Your task to perform on an android device: add a label to a message in the gmail app Image 0: 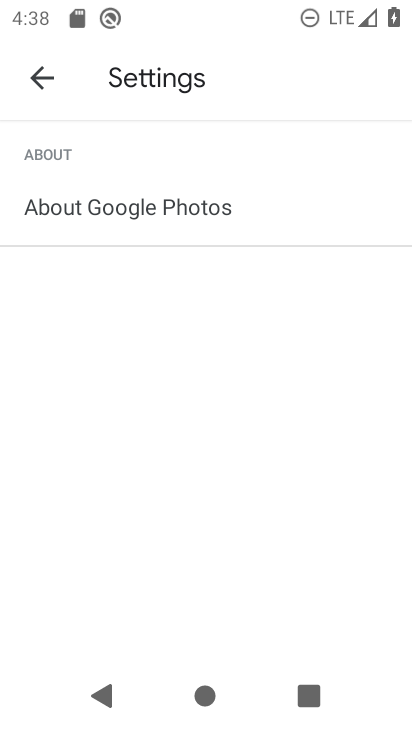
Step 0: press back button
Your task to perform on an android device: add a label to a message in the gmail app Image 1: 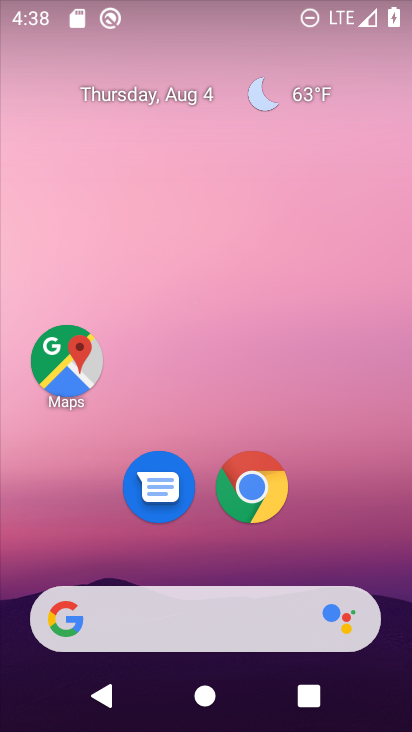
Step 1: drag from (52, 542) to (129, 104)
Your task to perform on an android device: add a label to a message in the gmail app Image 2: 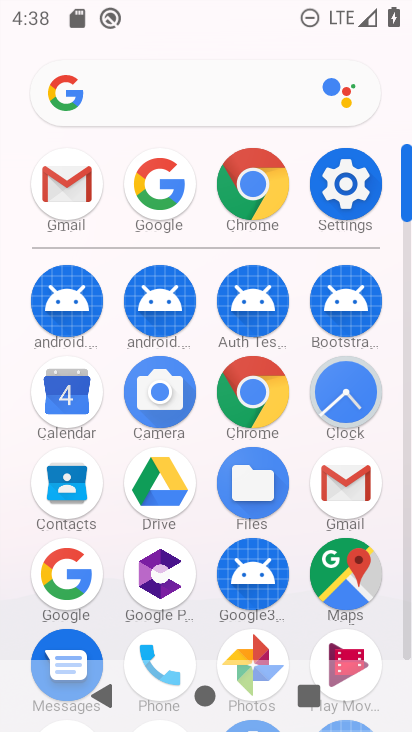
Step 2: click (76, 184)
Your task to perform on an android device: add a label to a message in the gmail app Image 3: 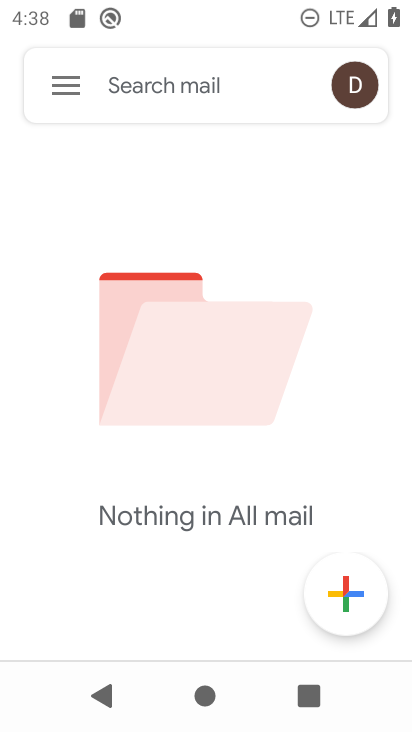
Step 3: task complete